Your task to perform on an android device: Open wifi settings Image 0: 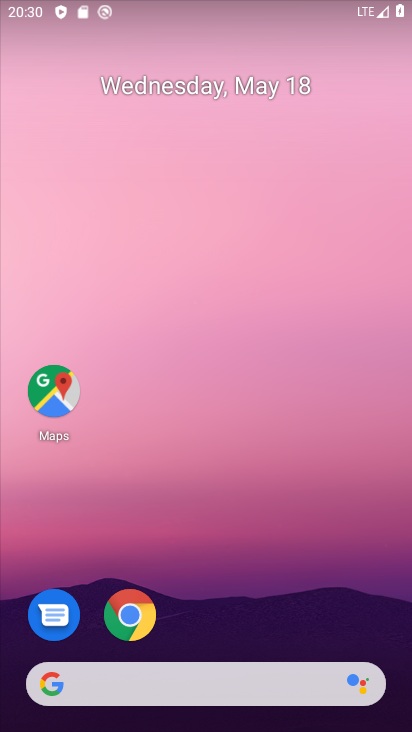
Step 0: drag from (252, 698) to (234, 7)
Your task to perform on an android device: Open wifi settings Image 1: 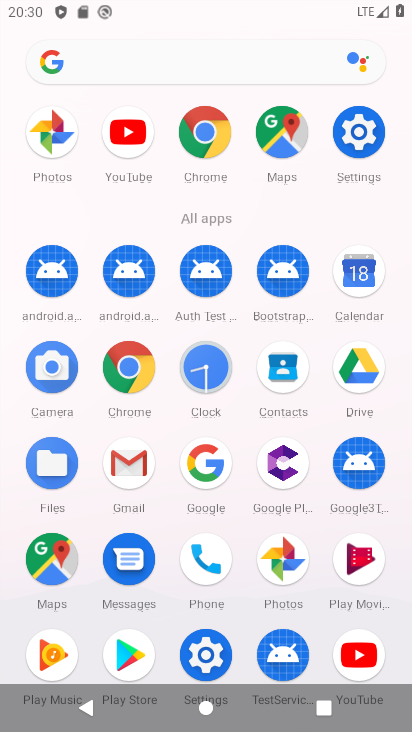
Step 1: click (344, 133)
Your task to perform on an android device: Open wifi settings Image 2: 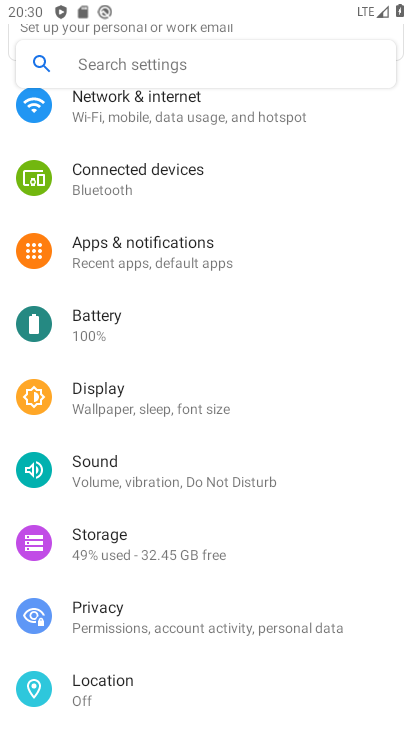
Step 2: click (187, 98)
Your task to perform on an android device: Open wifi settings Image 3: 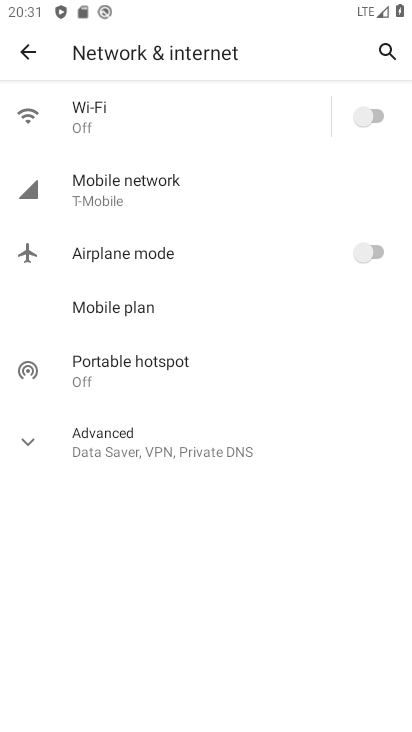
Step 3: click (113, 106)
Your task to perform on an android device: Open wifi settings Image 4: 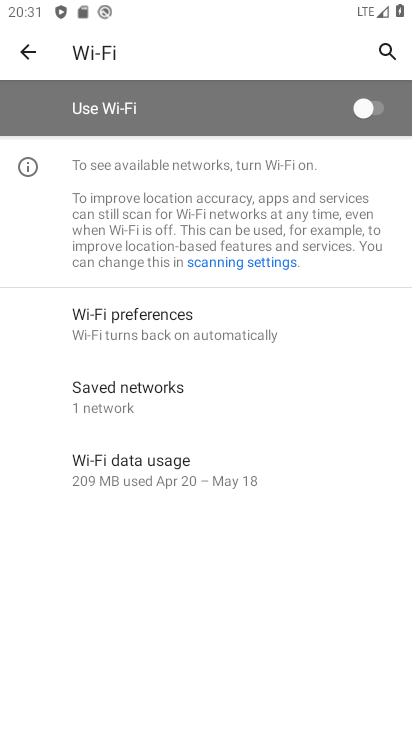
Step 4: task complete